Your task to perform on an android device: turn on notifications settings in the gmail app Image 0: 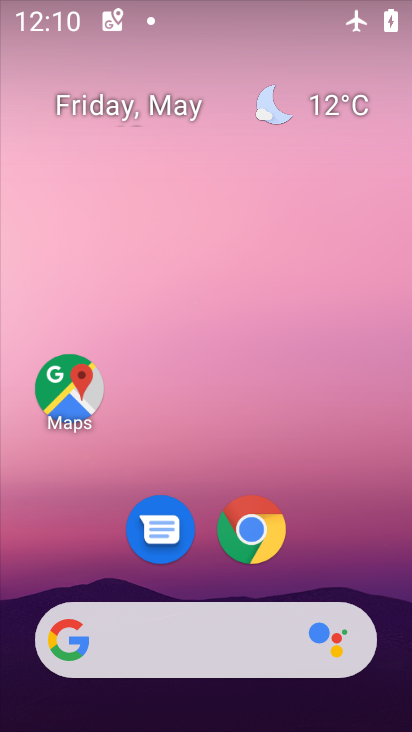
Step 0: drag from (313, 545) to (256, 99)
Your task to perform on an android device: turn on notifications settings in the gmail app Image 1: 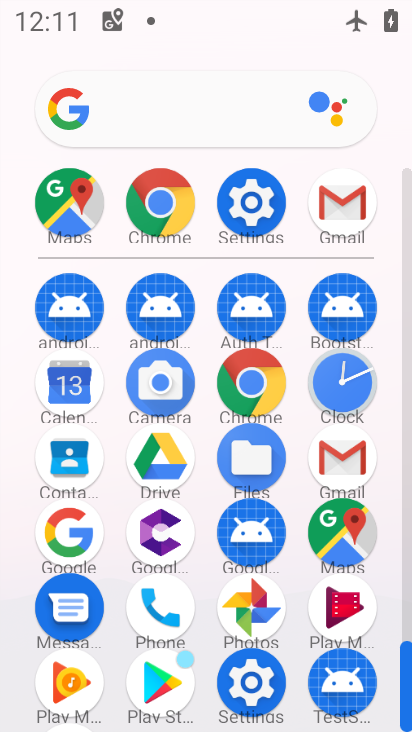
Step 1: click (323, 454)
Your task to perform on an android device: turn on notifications settings in the gmail app Image 2: 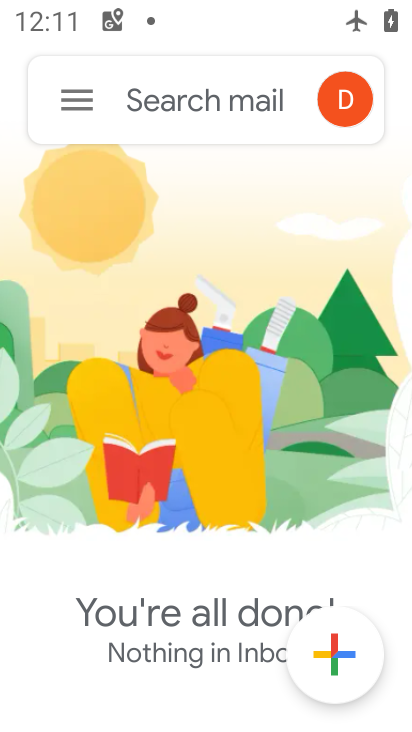
Step 2: click (84, 91)
Your task to perform on an android device: turn on notifications settings in the gmail app Image 3: 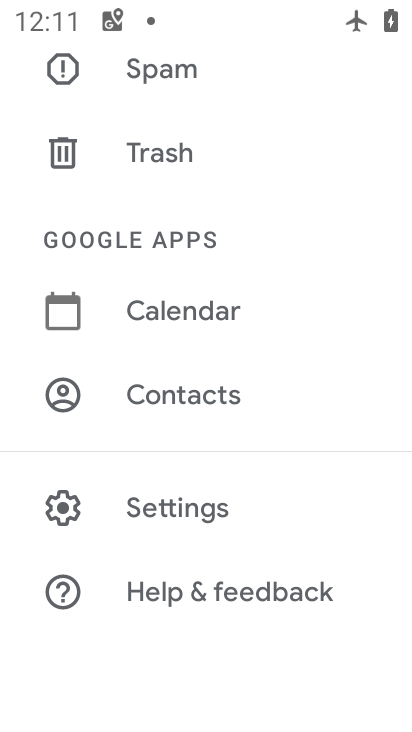
Step 3: click (206, 503)
Your task to perform on an android device: turn on notifications settings in the gmail app Image 4: 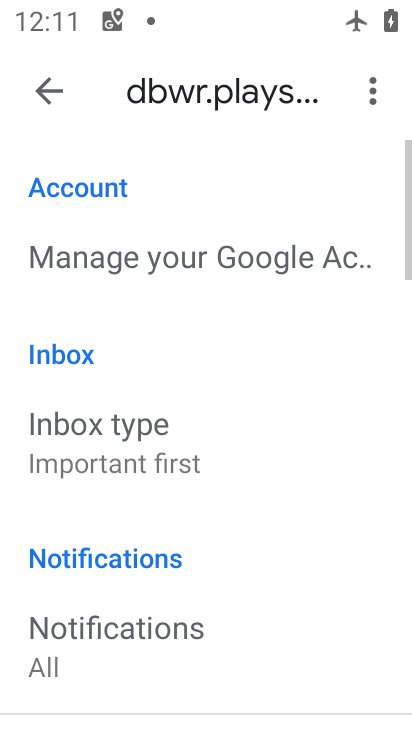
Step 4: drag from (204, 620) to (234, 272)
Your task to perform on an android device: turn on notifications settings in the gmail app Image 5: 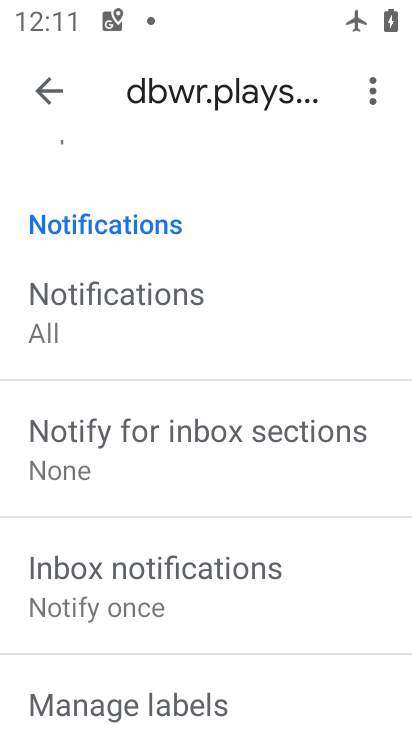
Step 5: drag from (269, 564) to (313, 186)
Your task to perform on an android device: turn on notifications settings in the gmail app Image 6: 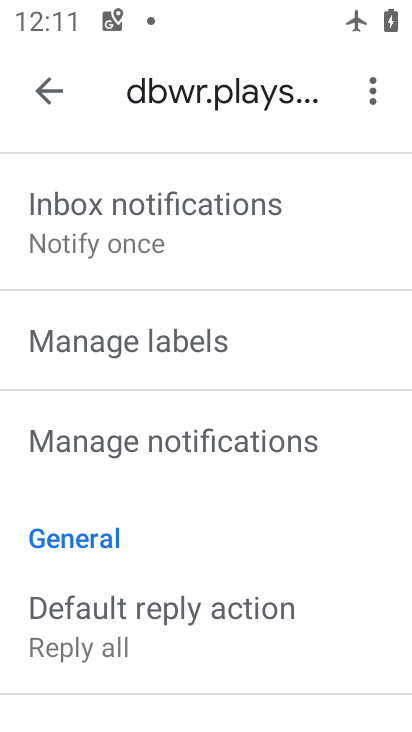
Step 6: drag from (245, 648) to (330, 307)
Your task to perform on an android device: turn on notifications settings in the gmail app Image 7: 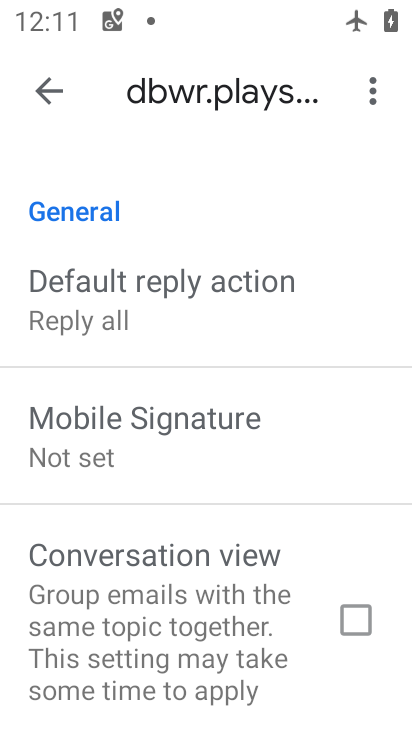
Step 7: drag from (180, 641) to (260, 237)
Your task to perform on an android device: turn on notifications settings in the gmail app Image 8: 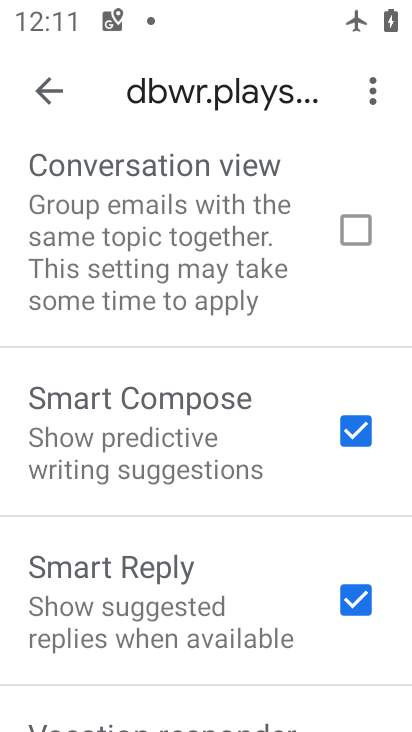
Step 8: drag from (198, 215) to (181, 664)
Your task to perform on an android device: turn on notifications settings in the gmail app Image 9: 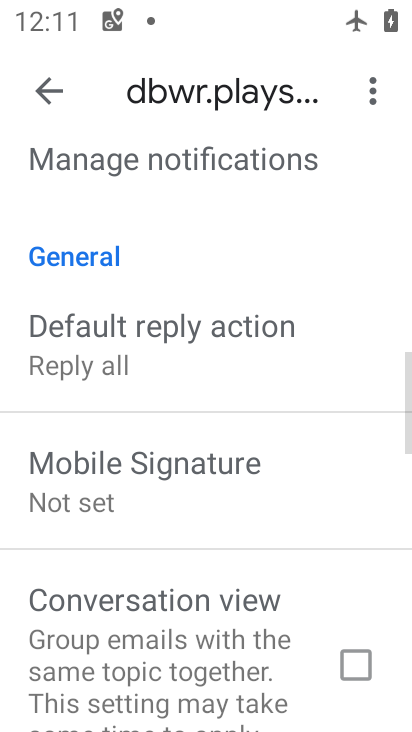
Step 9: drag from (184, 227) to (179, 666)
Your task to perform on an android device: turn on notifications settings in the gmail app Image 10: 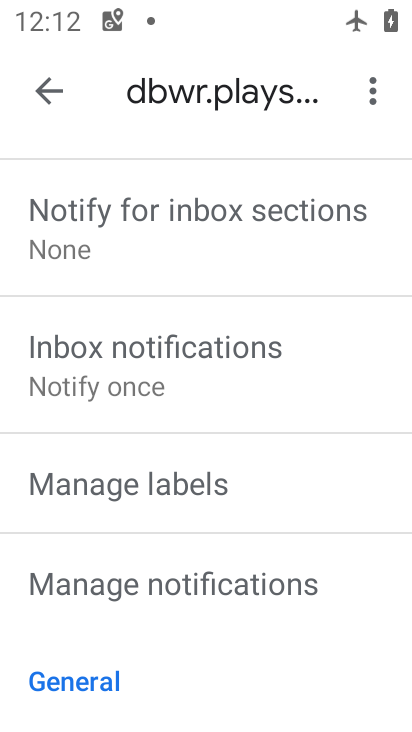
Step 10: drag from (120, 274) to (141, 729)
Your task to perform on an android device: turn on notifications settings in the gmail app Image 11: 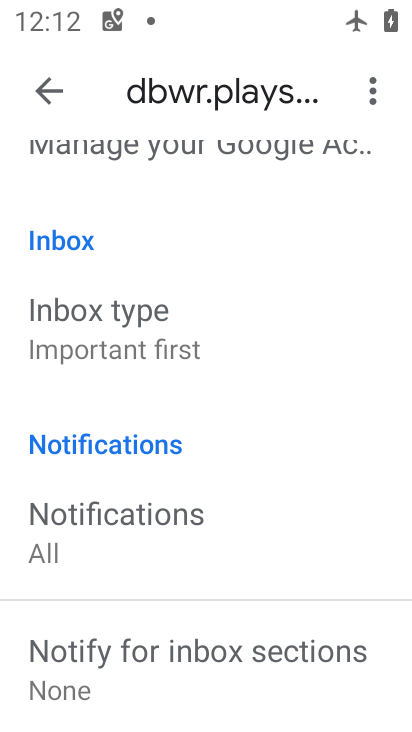
Step 11: drag from (162, 272) to (181, 650)
Your task to perform on an android device: turn on notifications settings in the gmail app Image 12: 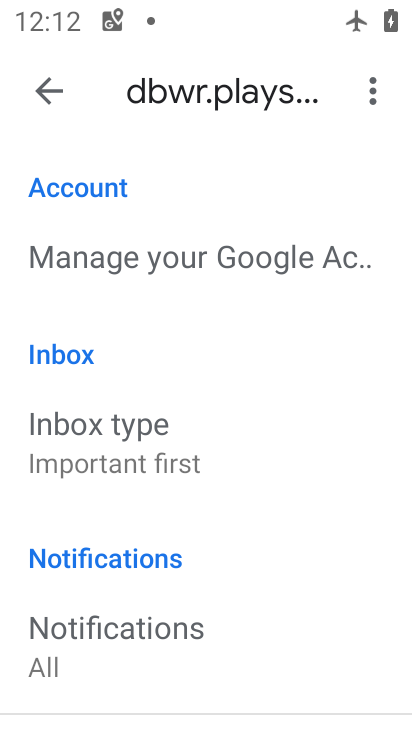
Step 12: click (156, 620)
Your task to perform on an android device: turn on notifications settings in the gmail app Image 13: 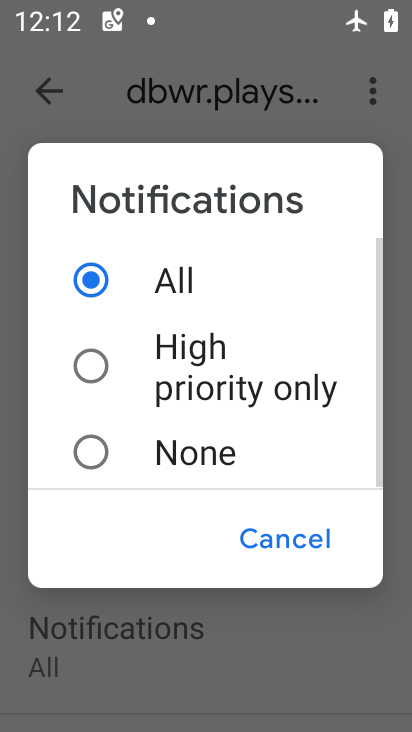
Step 13: click (173, 441)
Your task to perform on an android device: turn on notifications settings in the gmail app Image 14: 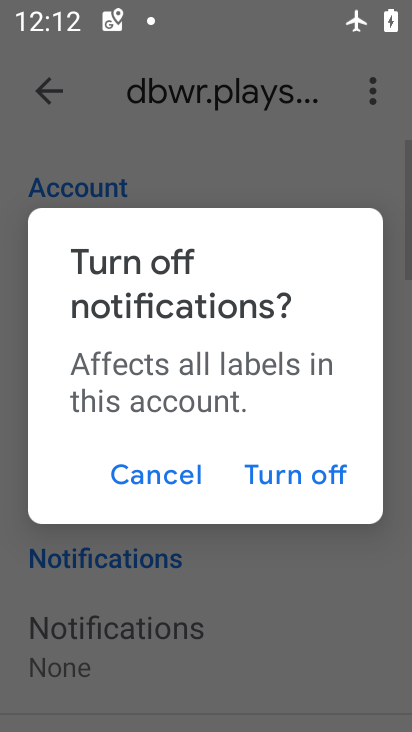
Step 14: click (297, 468)
Your task to perform on an android device: turn on notifications settings in the gmail app Image 15: 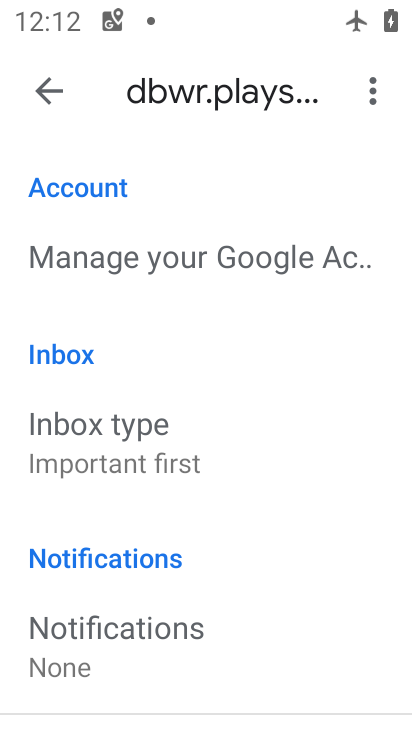
Step 15: task complete